Your task to perform on an android device: Open Chrome and go to the settings page Image 0: 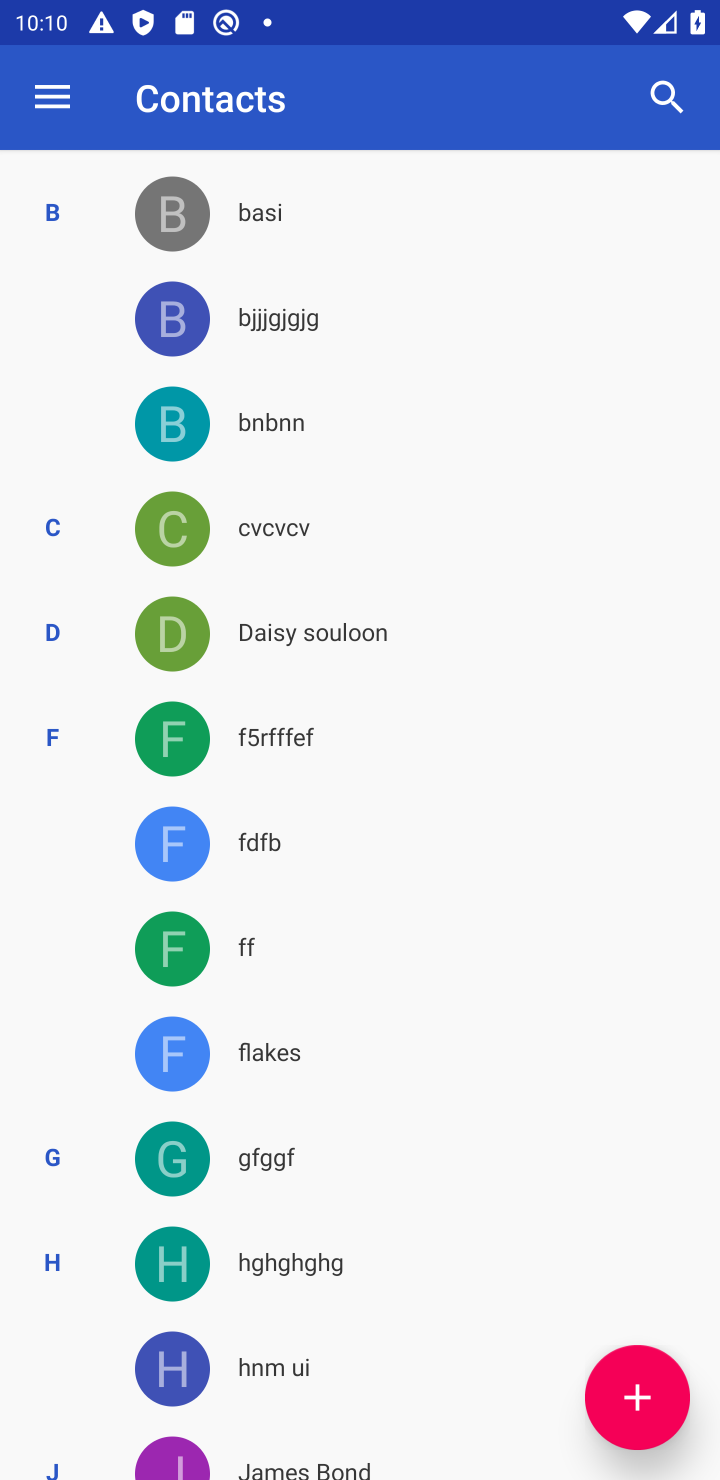
Step 0: press home button
Your task to perform on an android device: Open Chrome and go to the settings page Image 1: 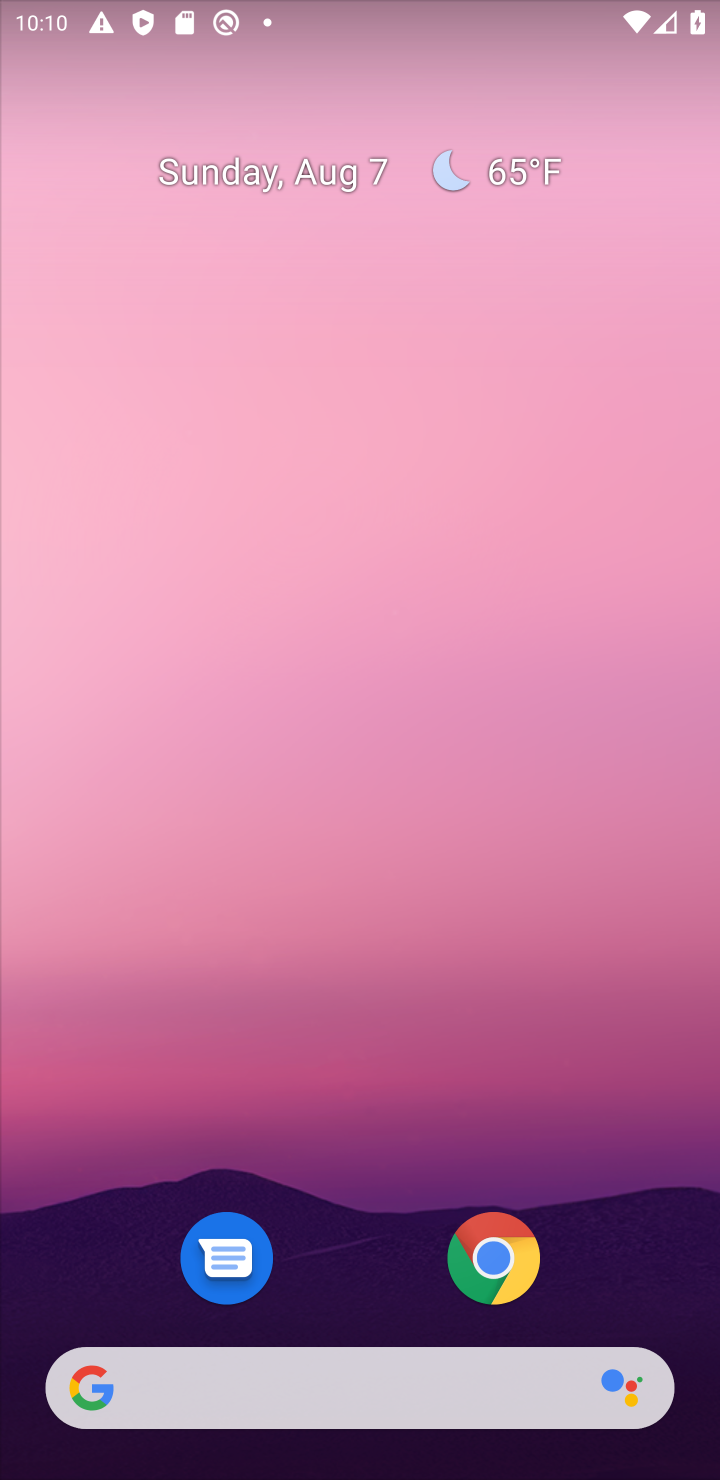
Step 1: click (519, 1252)
Your task to perform on an android device: Open Chrome and go to the settings page Image 2: 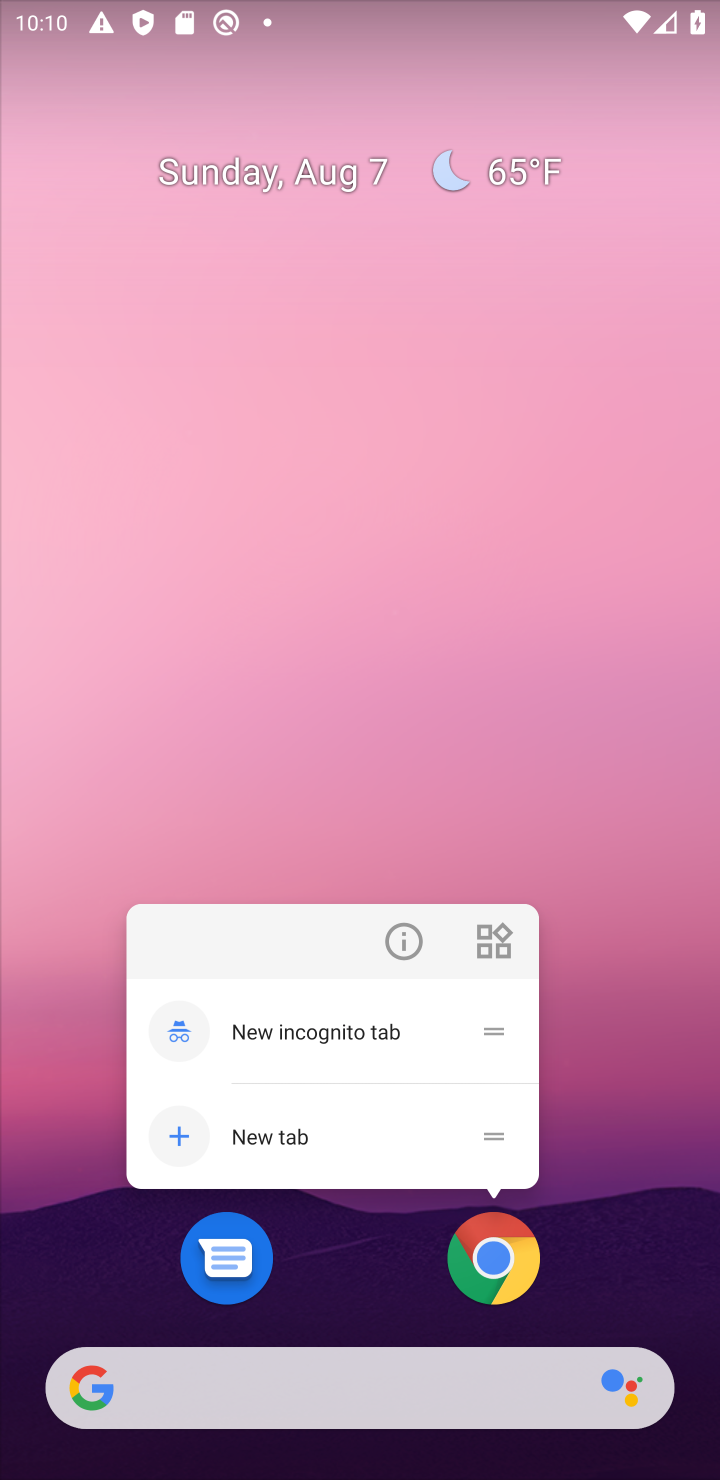
Step 2: click (519, 1252)
Your task to perform on an android device: Open Chrome and go to the settings page Image 3: 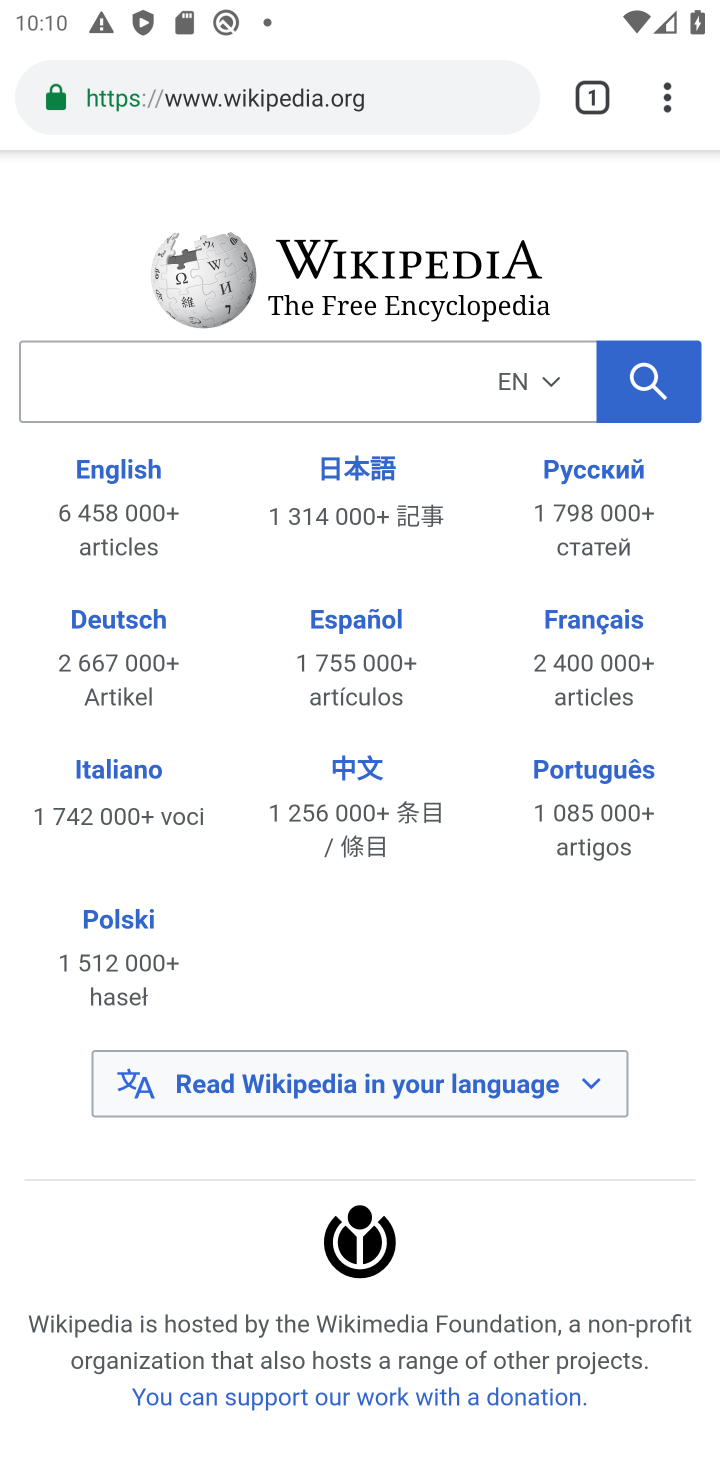
Step 3: task complete